Your task to perform on an android device: check out phone information Image 0: 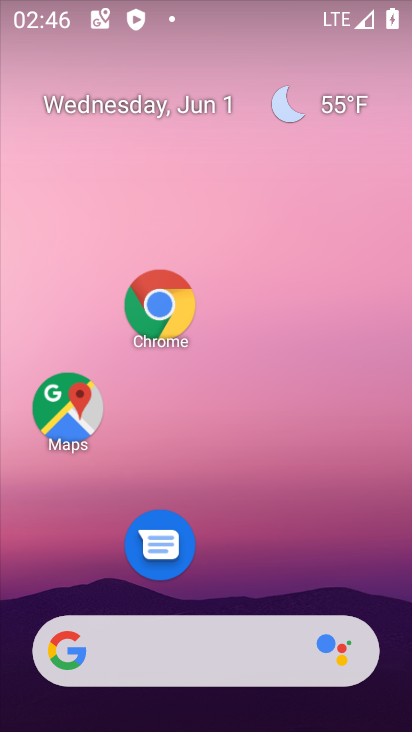
Step 0: drag from (226, 328) to (224, 184)
Your task to perform on an android device: check out phone information Image 1: 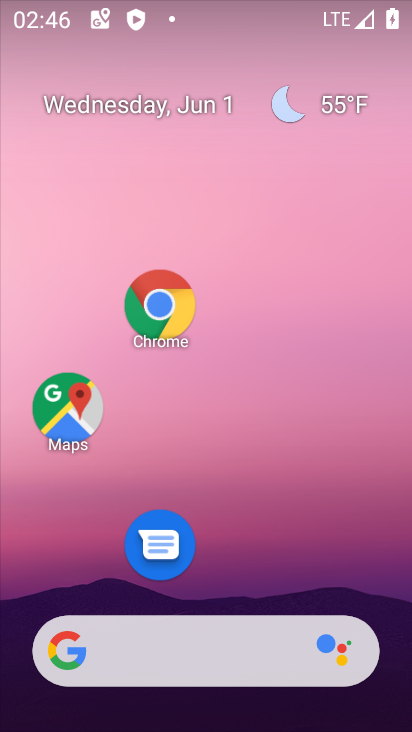
Step 1: drag from (199, 599) to (241, 234)
Your task to perform on an android device: check out phone information Image 2: 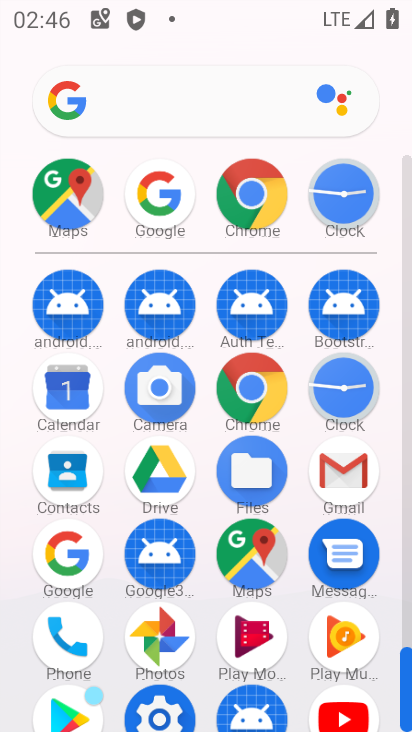
Step 2: click (161, 701)
Your task to perform on an android device: check out phone information Image 3: 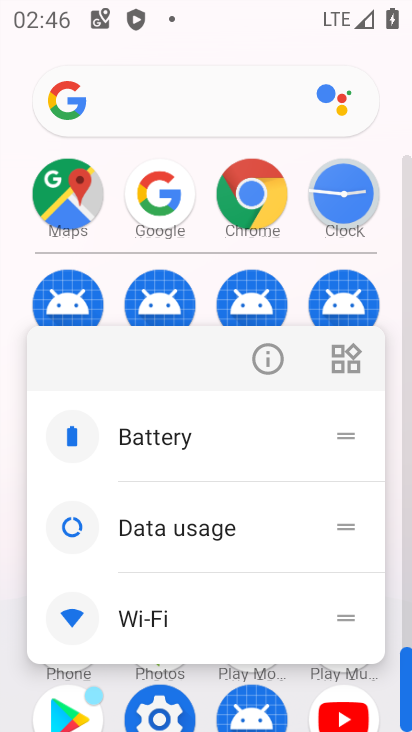
Step 3: click (157, 718)
Your task to perform on an android device: check out phone information Image 4: 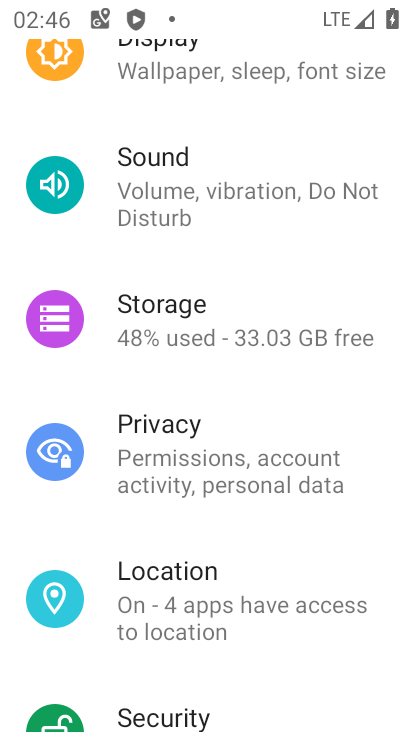
Step 4: drag from (187, 632) to (249, 233)
Your task to perform on an android device: check out phone information Image 5: 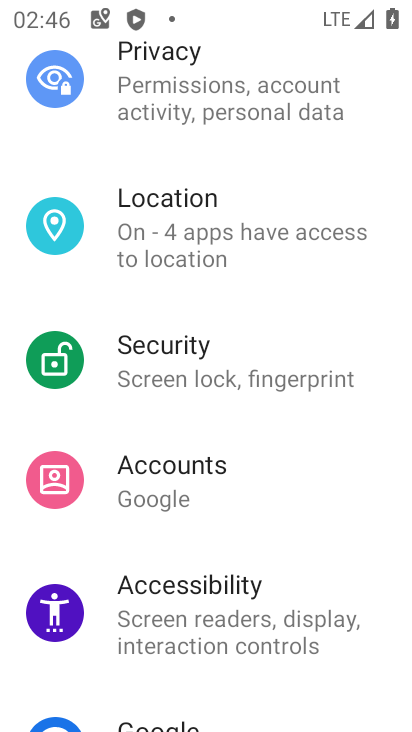
Step 5: drag from (196, 610) to (195, 292)
Your task to perform on an android device: check out phone information Image 6: 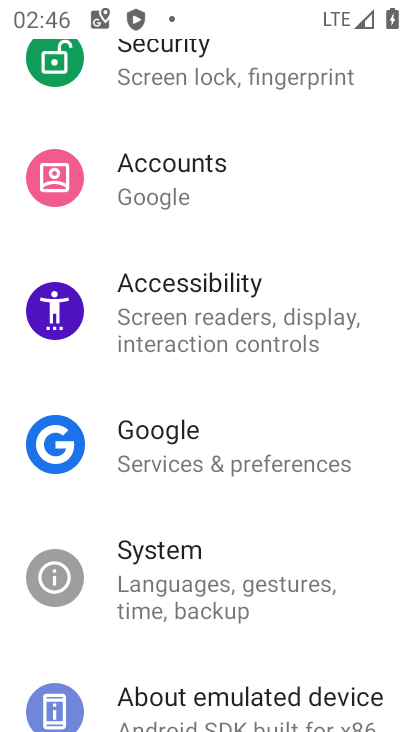
Step 6: drag from (219, 601) to (267, 197)
Your task to perform on an android device: check out phone information Image 7: 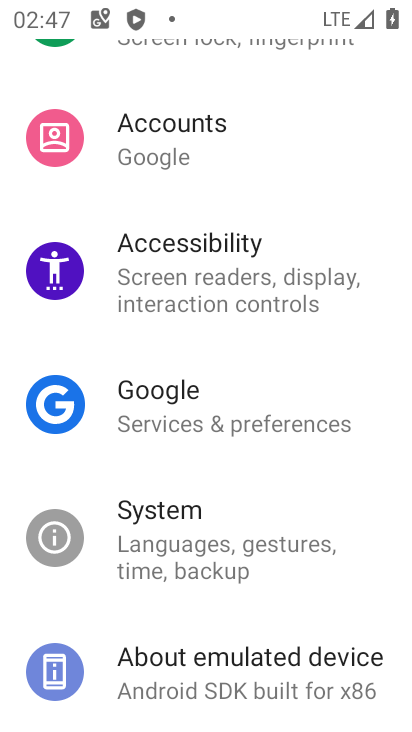
Step 7: click (193, 683)
Your task to perform on an android device: check out phone information Image 8: 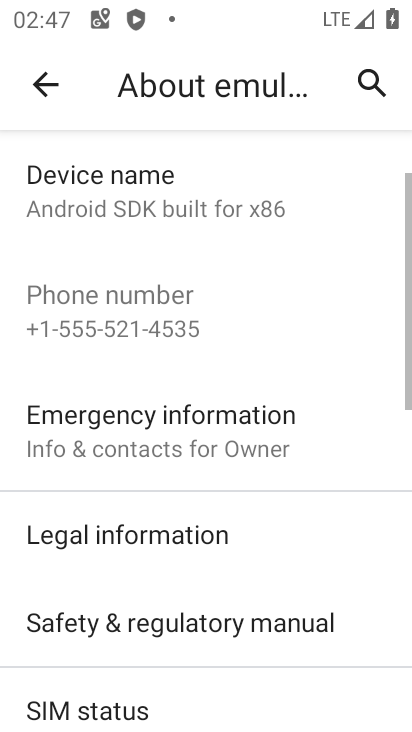
Step 8: task complete